Your task to perform on an android device: delete the emails in spam in the gmail app Image 0: 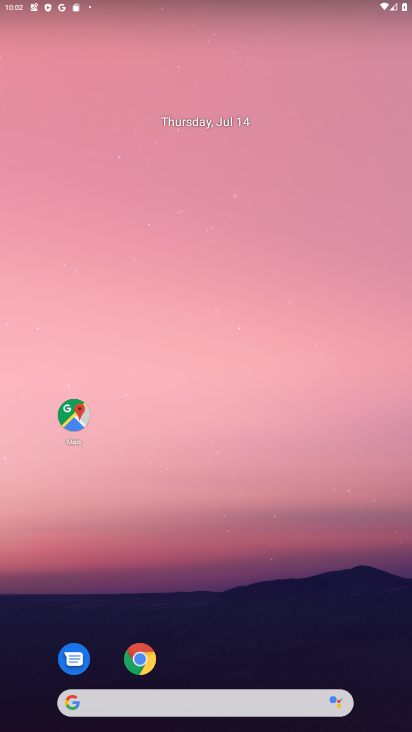
Step 0: drag from (333, 625) to (262, 181)
Your task to perform on an android device: delete the emails in spam in the gmail app Image 1: 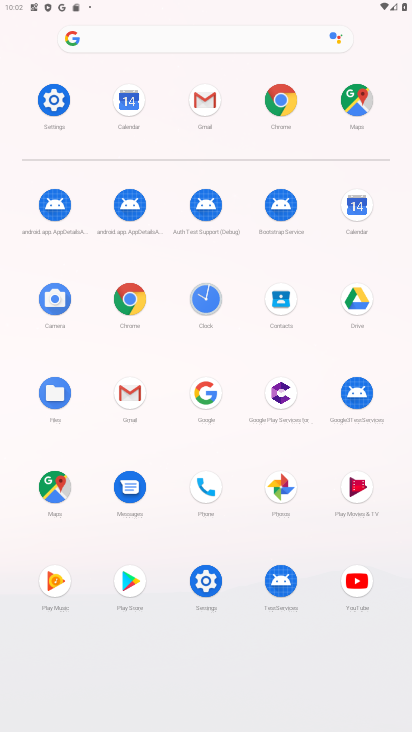
Step 1: click (217, 104)
Your task to perform on an android device: delete the emails in spam in the gmail app Image 2: 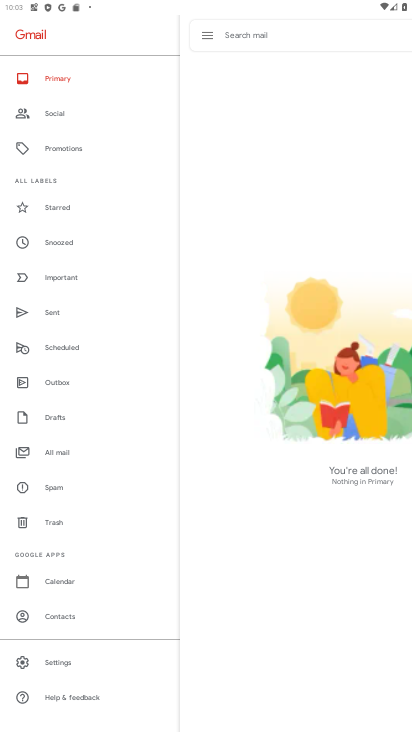
Step 2: click (56, 483)
Your task to perform on an android device: delete the emails in spam in the gmail app Image 3: 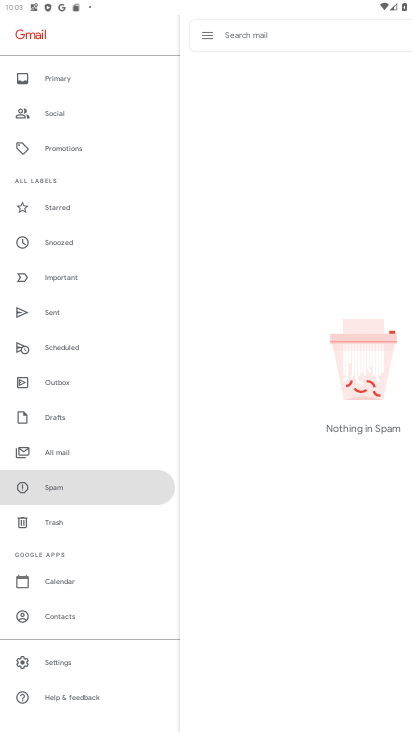
Step 3: task complete